Your task to perform on an android device: Go to location settings Image 0: 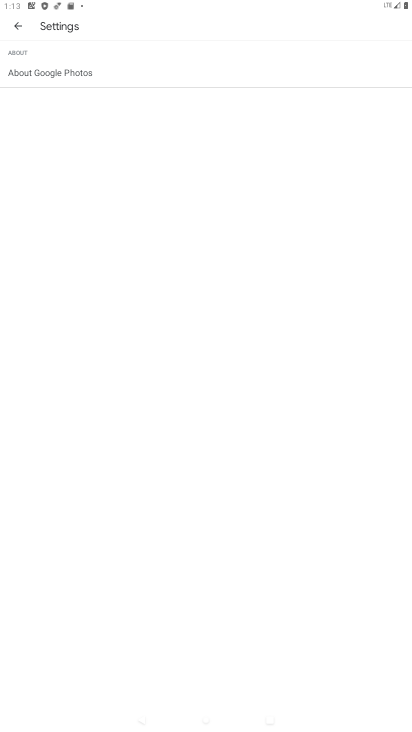
Step 0: press home button
Your task to perform on an android device: Go to location settings Image 1: 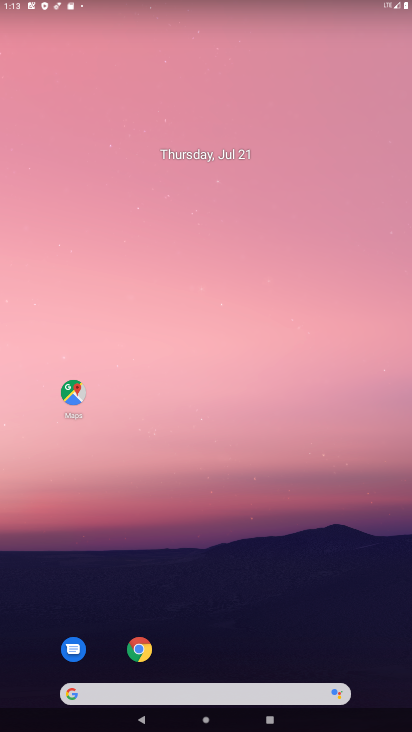
Step 1: drag from (217, 720) to (269, 51)
Your task to perform on an android device: Go to location settings Image 2: 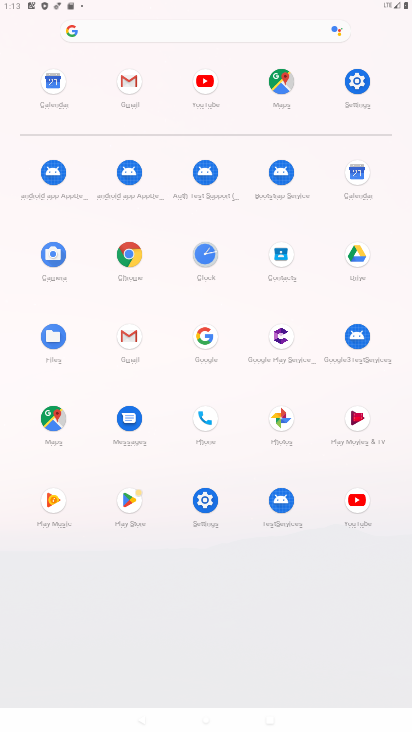
Step 2: click (357, 83)
Your task to perform on an android device: Go to location settings Image 3: 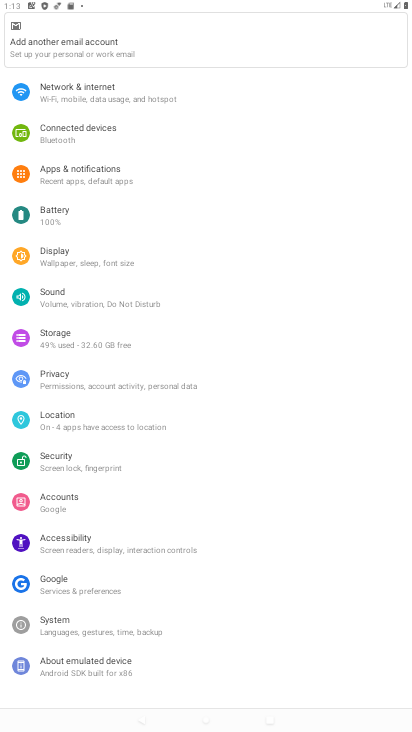
Step 3: click (66, 411)
Your task to perform on an android device: Go to location settings Image 4: 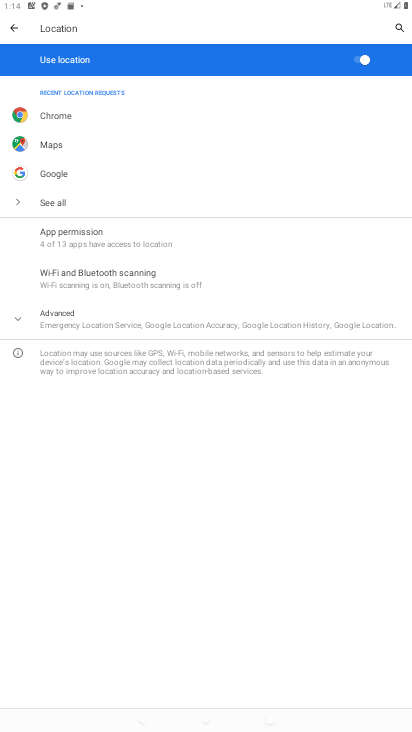
Step 4: task complete